Your task to perform on an android device: Add bose soundlink mini to the cart on newegg.com, then select checkout. Image 0: 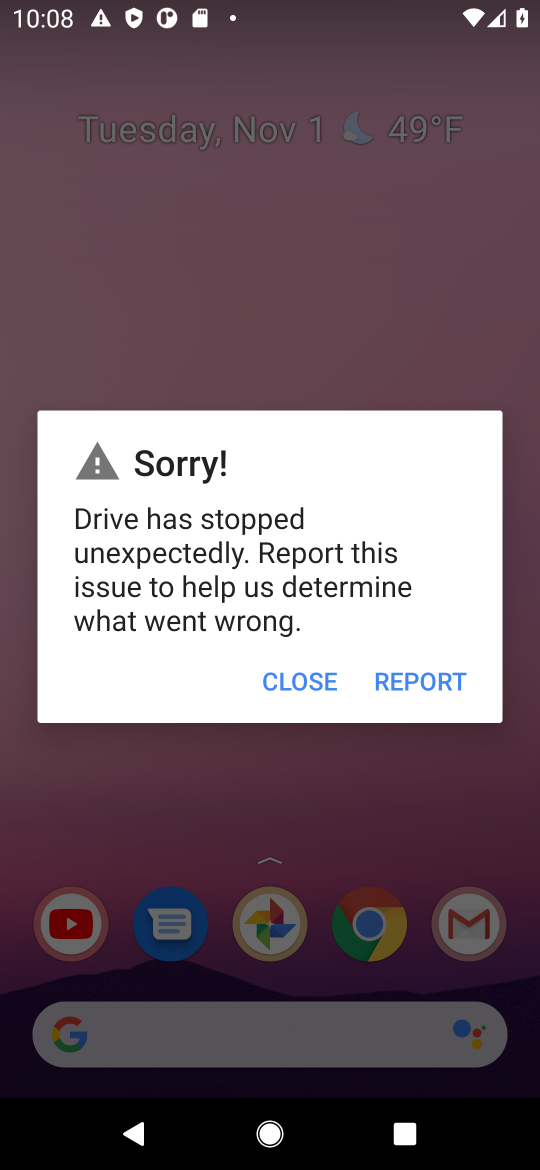
Step 0: press home button
Your task to perform on an android device: Add bose soundlink mini to the cart on newegg.com, then select checkout. Image 1: 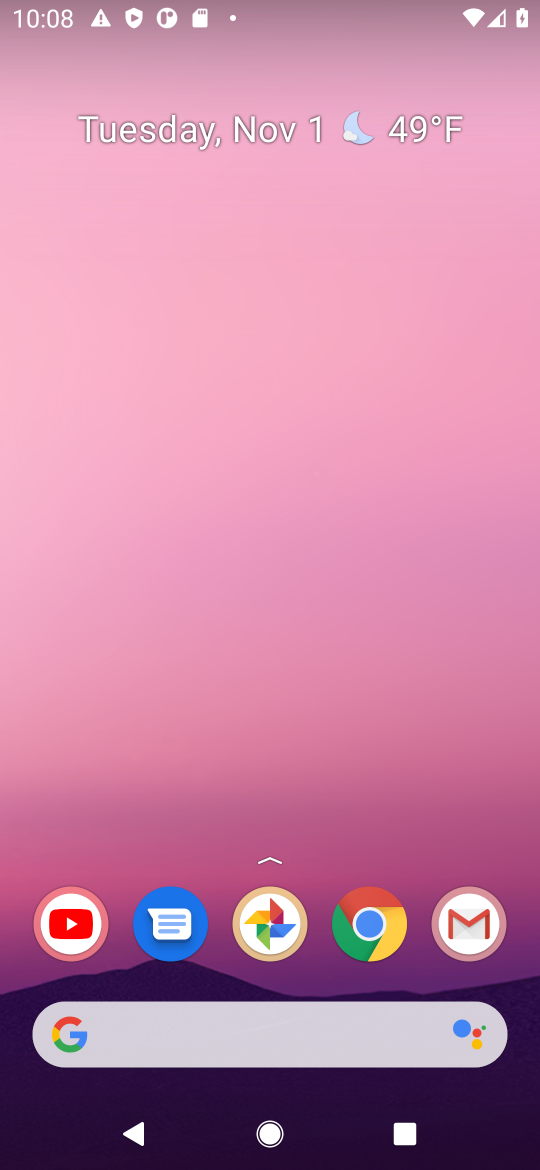
Step 1: click (347, 928)
Your task to perform on an android device: Add bose soundlink mini to the cart on newegg.com, then select checkout. Image 2: 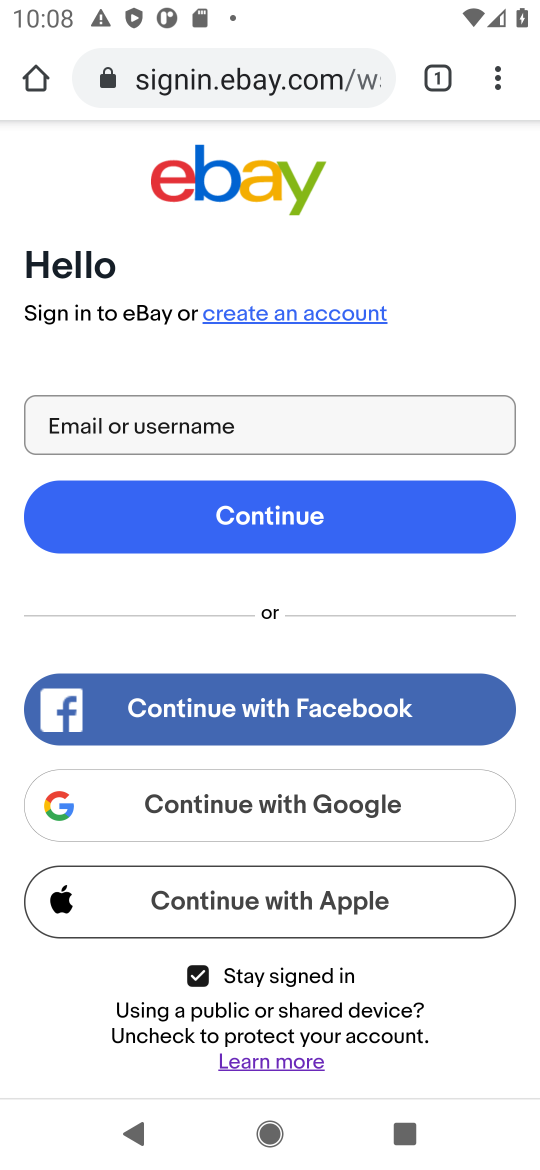
Step 2: click (300, 73)
Your task to perform on an android device: Add bose soundlink mini to the cart on newegg.com, then select checkout. Image 3: 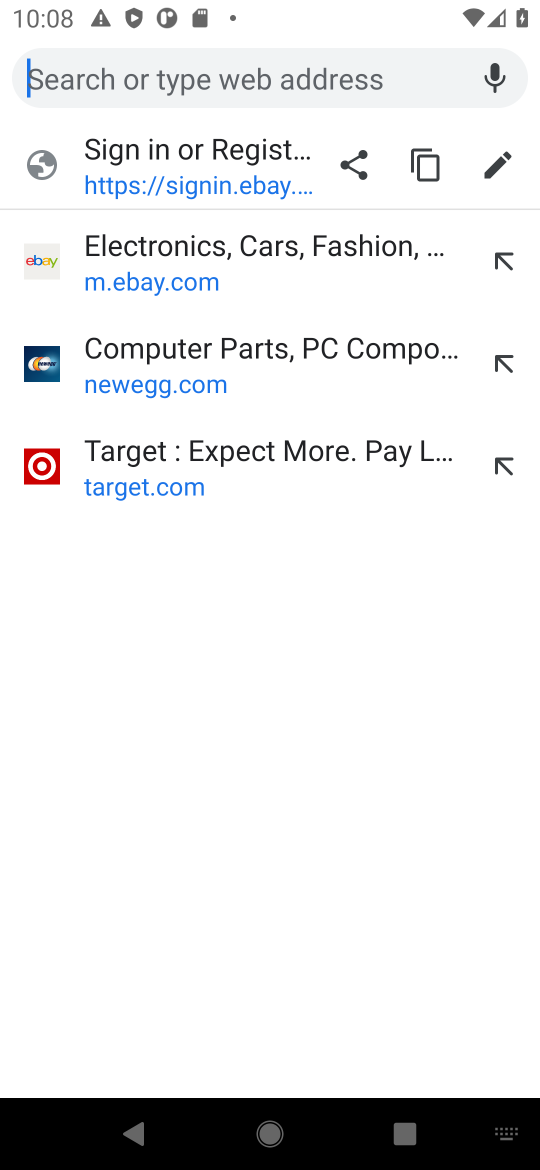
Step 3: type "newegg.com"
Your task to perform on an android device: Add bose soundlink mini to the cart on newegg.com, then select checkout. Image 4: 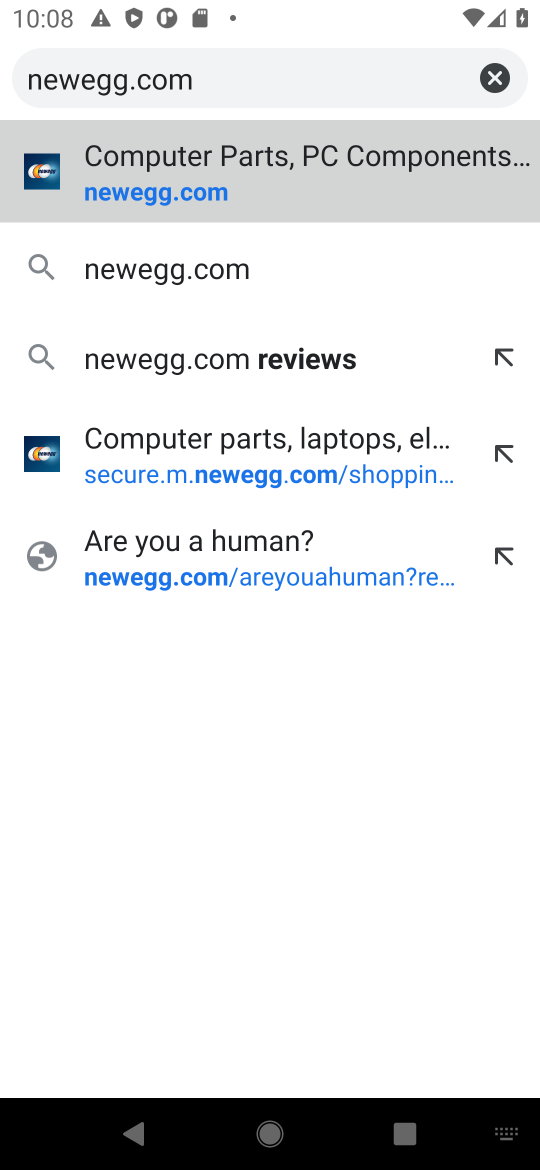
Step 4: click (389, 185)
Your task to perform on an android device: Add bose soundlink mini to the cart on newegg.com, then select checkout. Image 5: 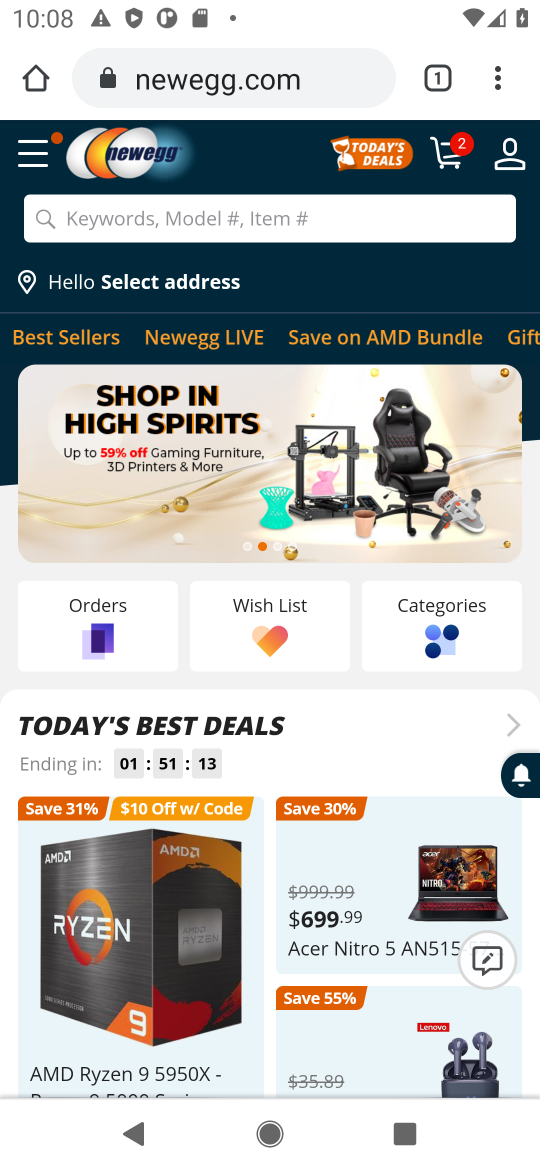
Step 5: click (290, 218)
Your task to perform on an android device: Add bose soundlink mini to the cart on newegg.com, then select checkout. Image 6: 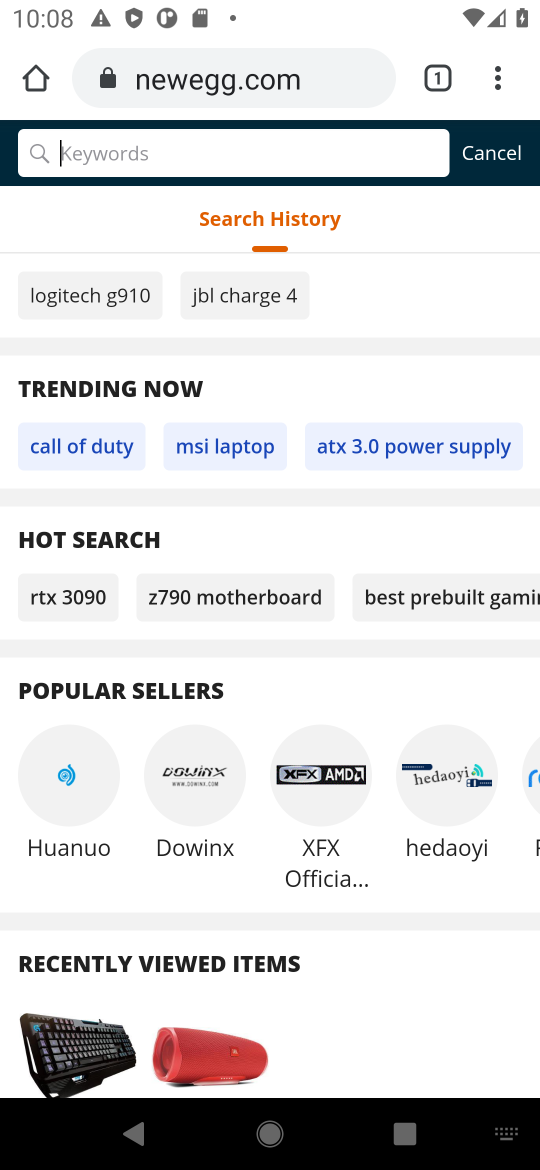
Step 6: type "bose soundlink mini"
Your task to perform on an android device: Add bose soundlink mini to the cart on newegg.com, then select checkout. Image 7: 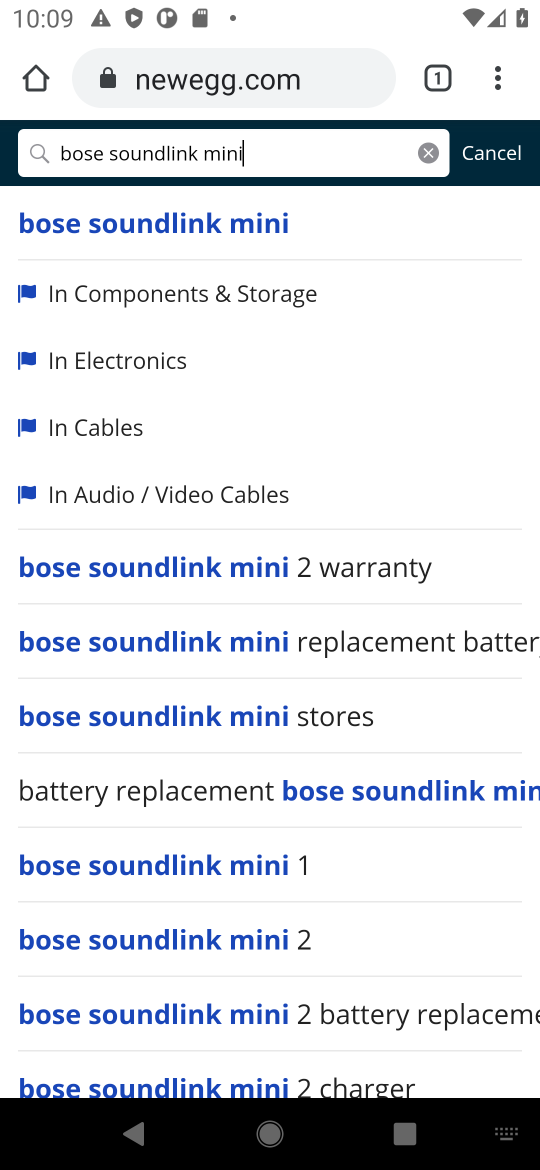
Step 7: press enter
Your task to perform on an android device: Add bose soundlink mini to the cart on newegg.com, then select checkout. Image 8: 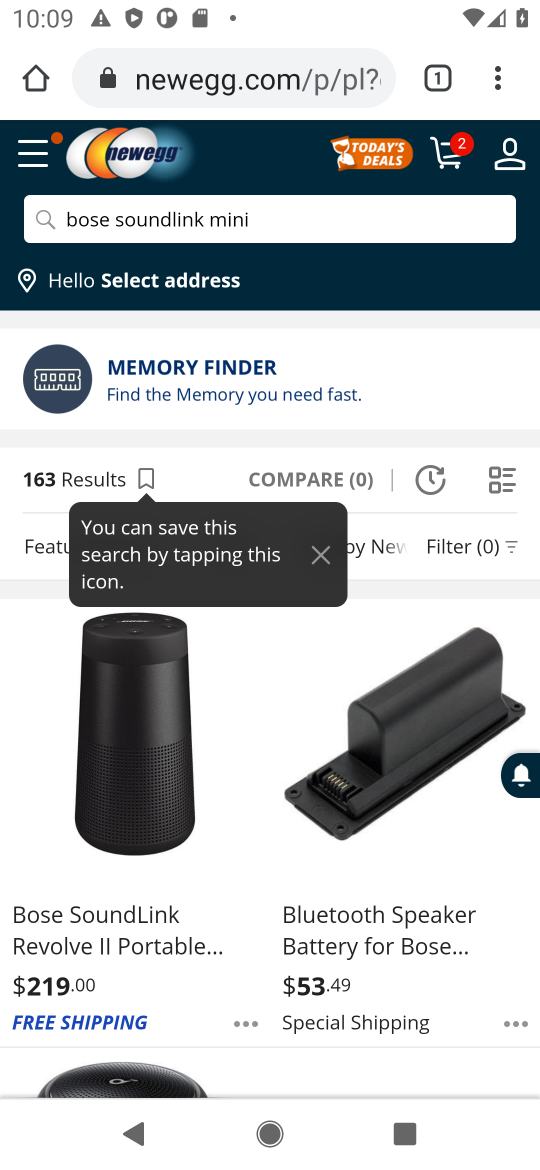
Step 8: click (92, 847)
Your task to perform on an android device: Add bose soundlink mini to the cart on newegg.com, then select checkout. Image 9: 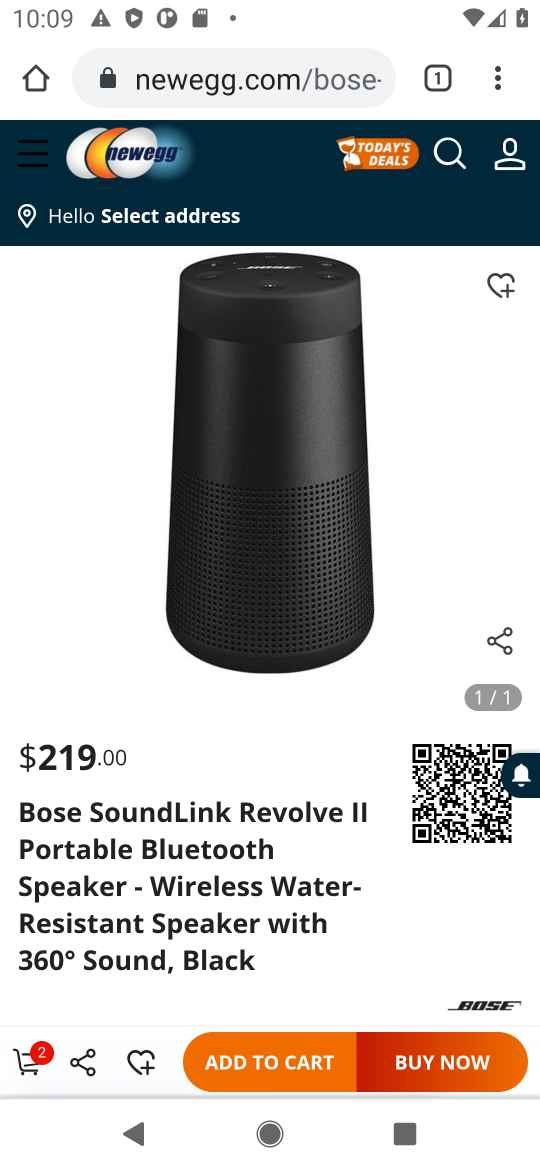
Step 9: click (282, 1076)
Your task to perform on an android device: Add bose soundlink mini to the cart on newegg.com, then select checkout. Image 10: 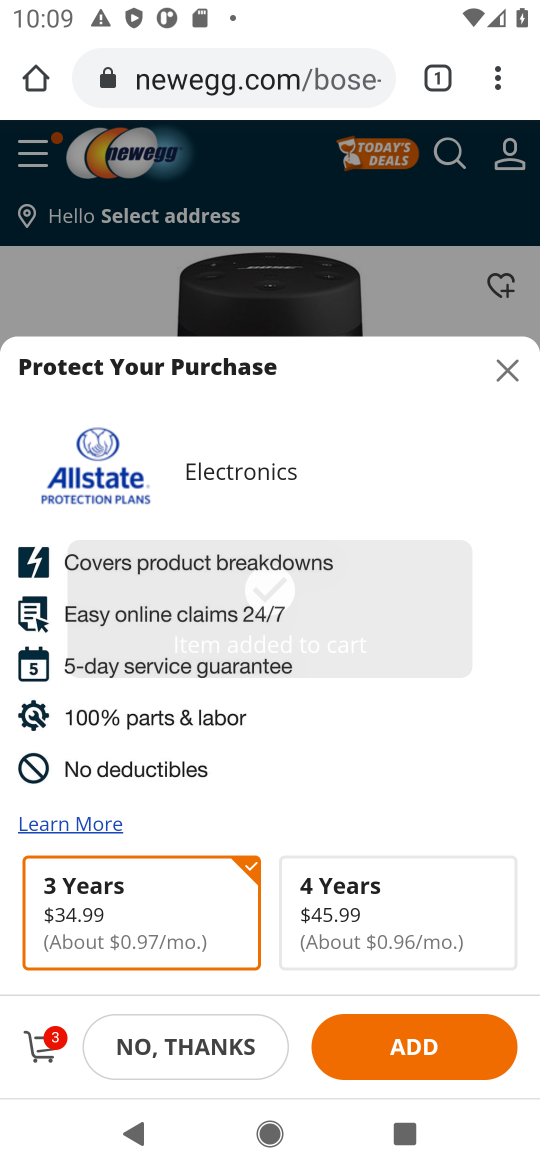
Step 10: press back button
Your task to perform on an android device: Add bose soundlink mini to the cart on newegg.com, then select checkout. Image 11: 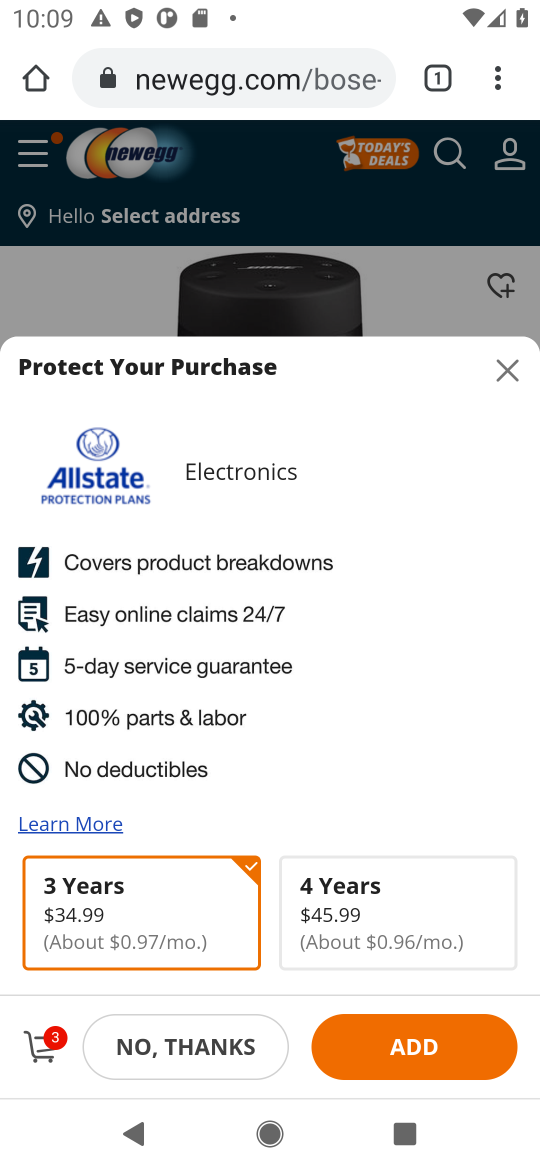
Step 11: press back button
Your task to perform on an android device: Add bose soundlink mini to the cart on newegg.com, then select checkout. Image 12: 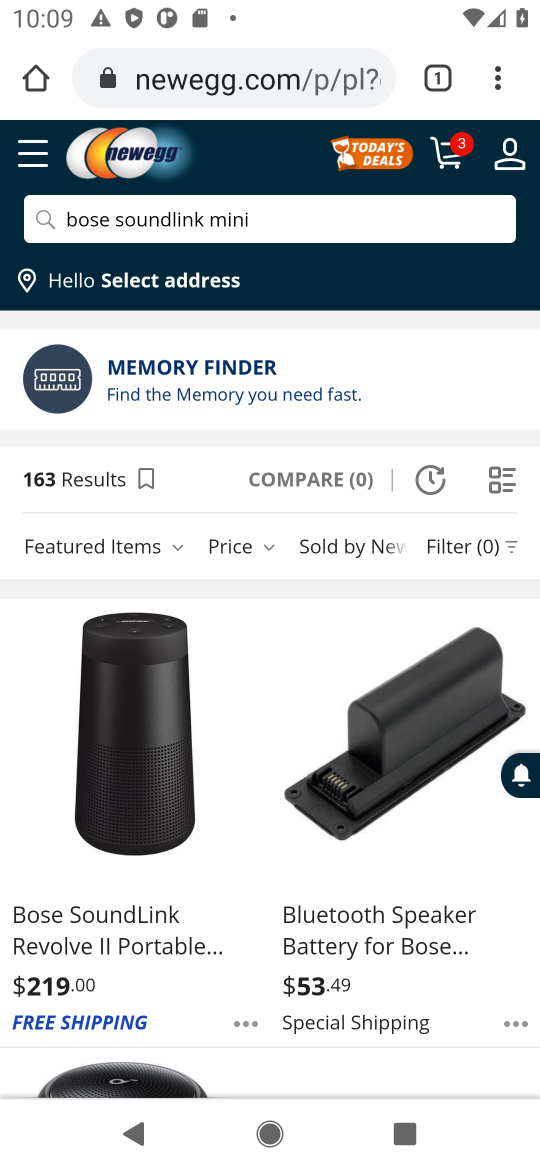
Step 12: click (513, 376)
Your task to perform on an android device: Add bose soundlink mini to the cart on newegg.com, then select checkout. Image 13: 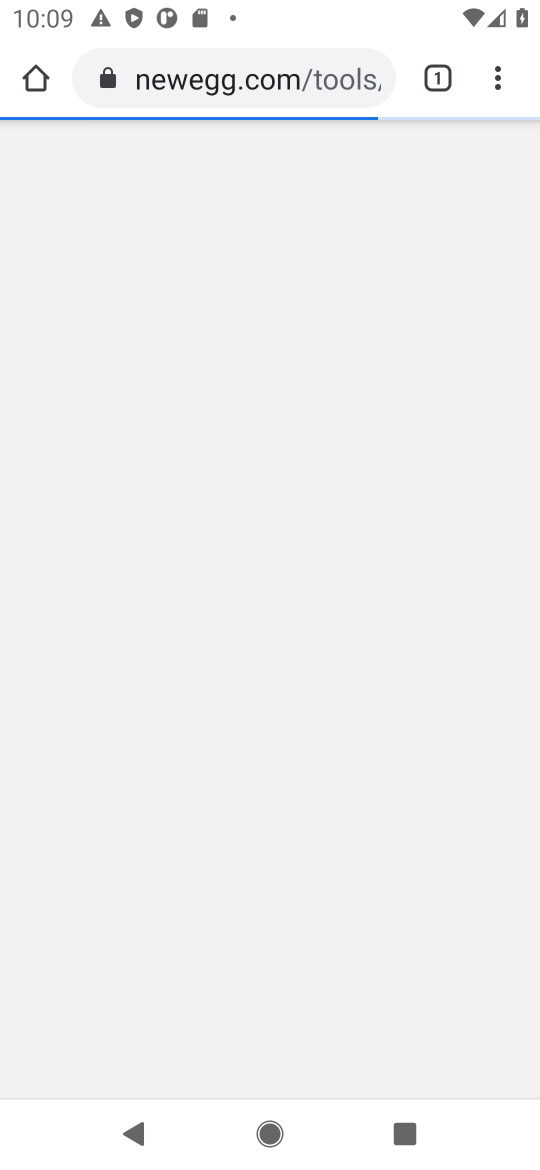
Step 13: click (243, 882)
Your task to perform on an android device: Add bose soundlink mini to the cart on newegg.com, then select checkout. Image 14: 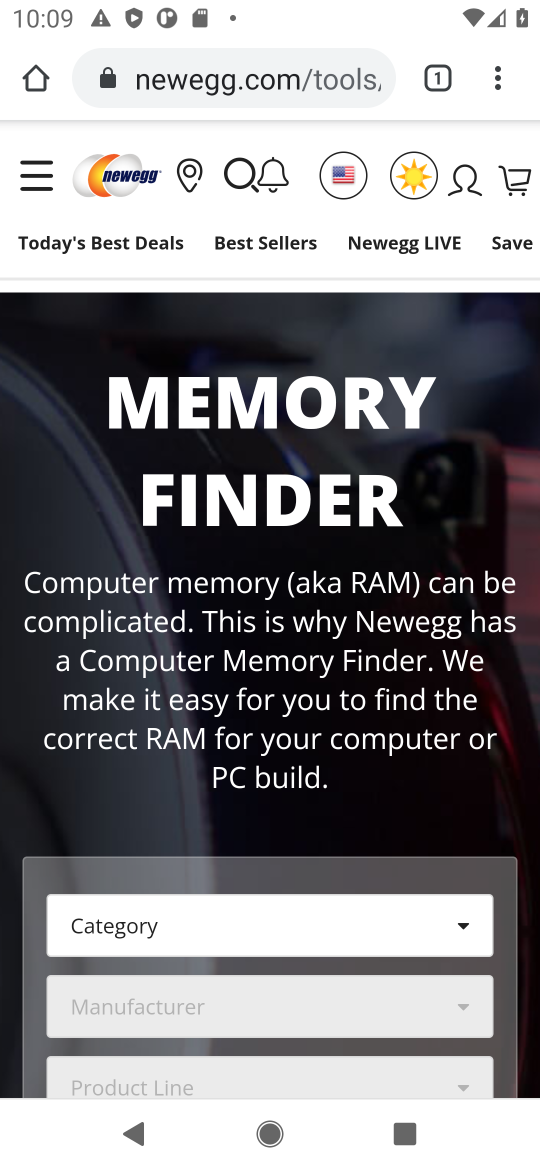
Step 14: press back button
Your task to perform on an android device: Add bose soundlink mini to the cart on newegg.com, then select checkout. Image 15: 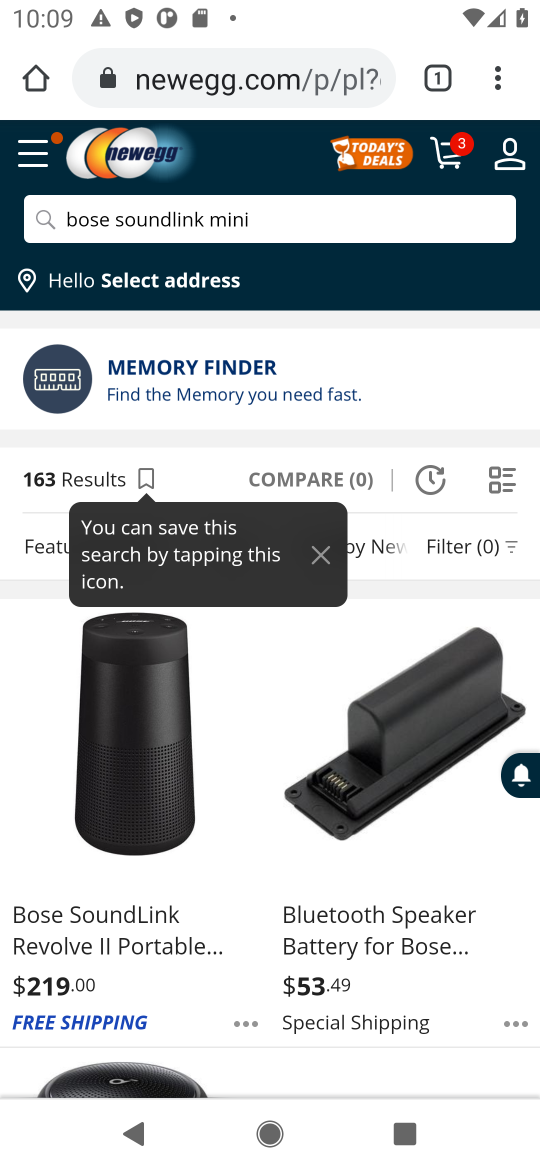
Step 15: drag from (226, 581) to (247, 251)
Your task to perform on an android device: Add bose soundlink mini to the cart on newegg.com, then select checkout. Image 16: 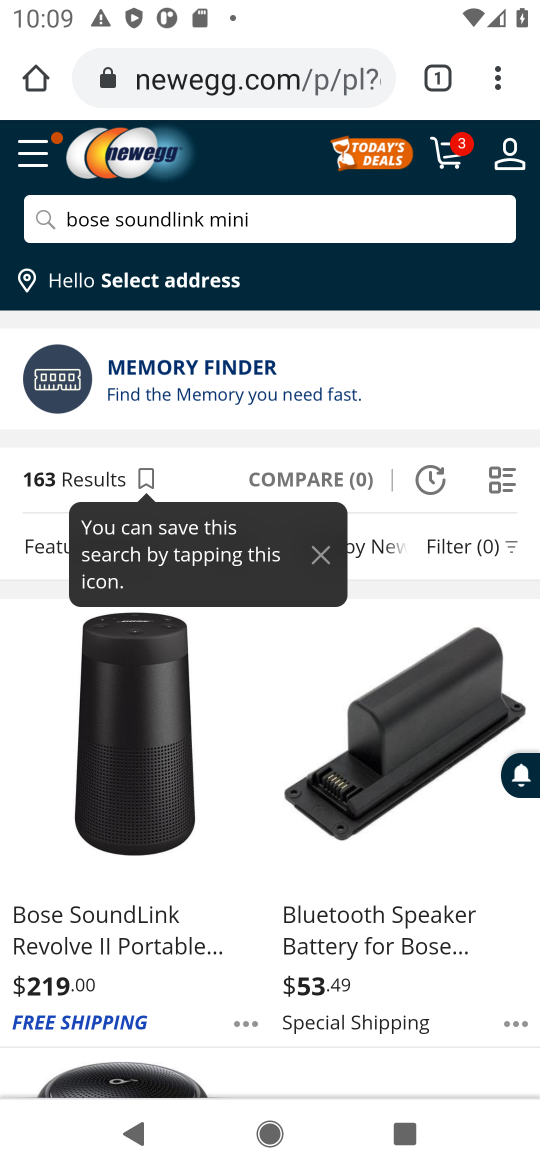
Step 16: drag from (249, 1029) to (209, 547)
Your task to perform on an android device: Add bose soundlink mini to the cart on newegg.com, then select checkout. Image 17: 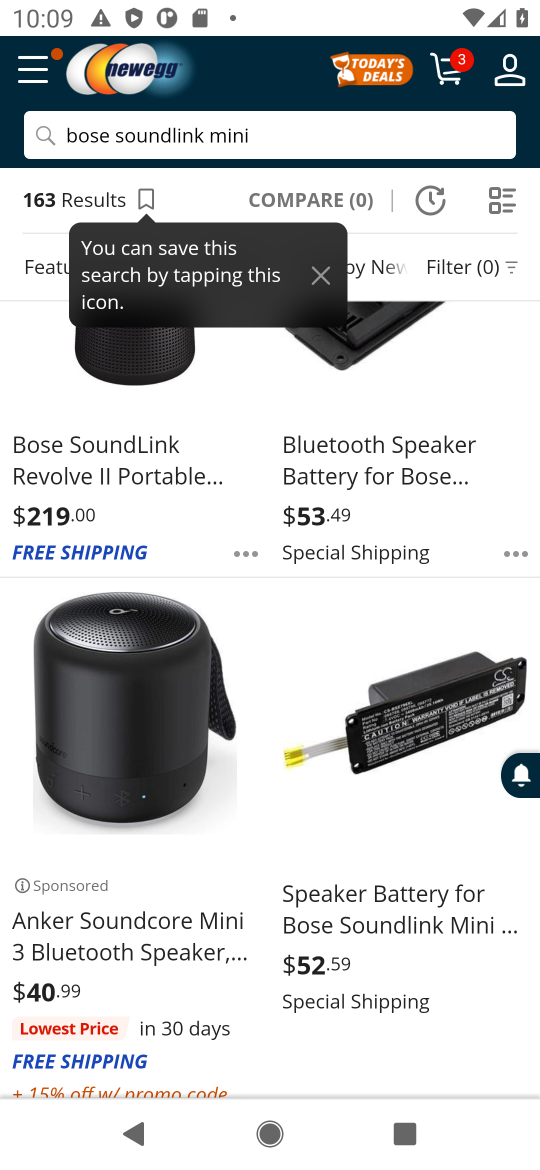
Step 17: click (452, 75)
Your task to perform on an android device: Add bose soundlink mini to the cart on newegg.com, then select checkout. Image 18: 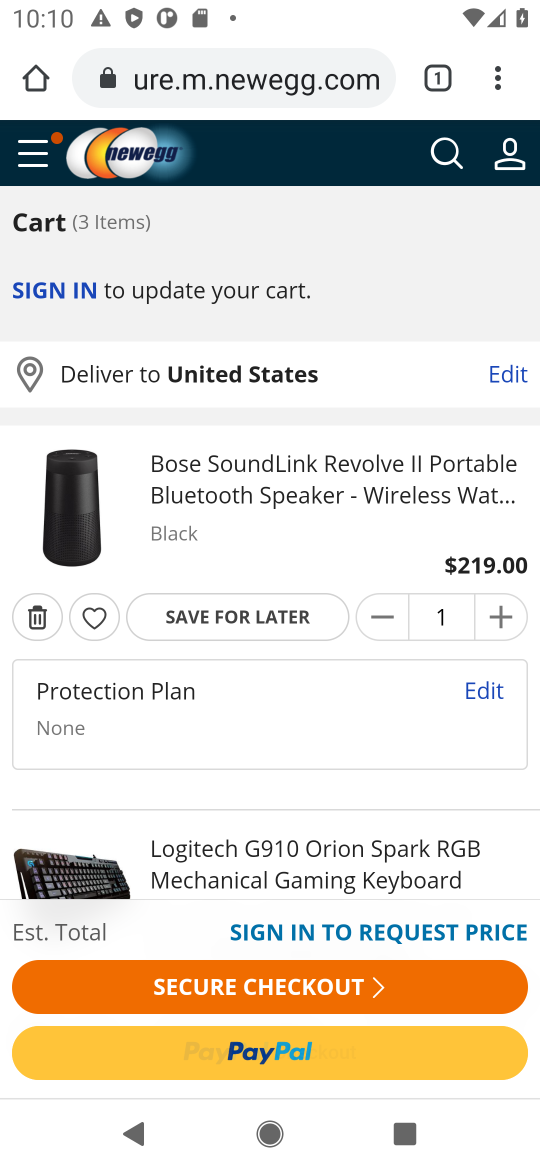
Step 18: click (253, 987)
Your task to perform on an android device: Add bose soundlink mini to the cart on newegg.com, then select checkout. Image 19: 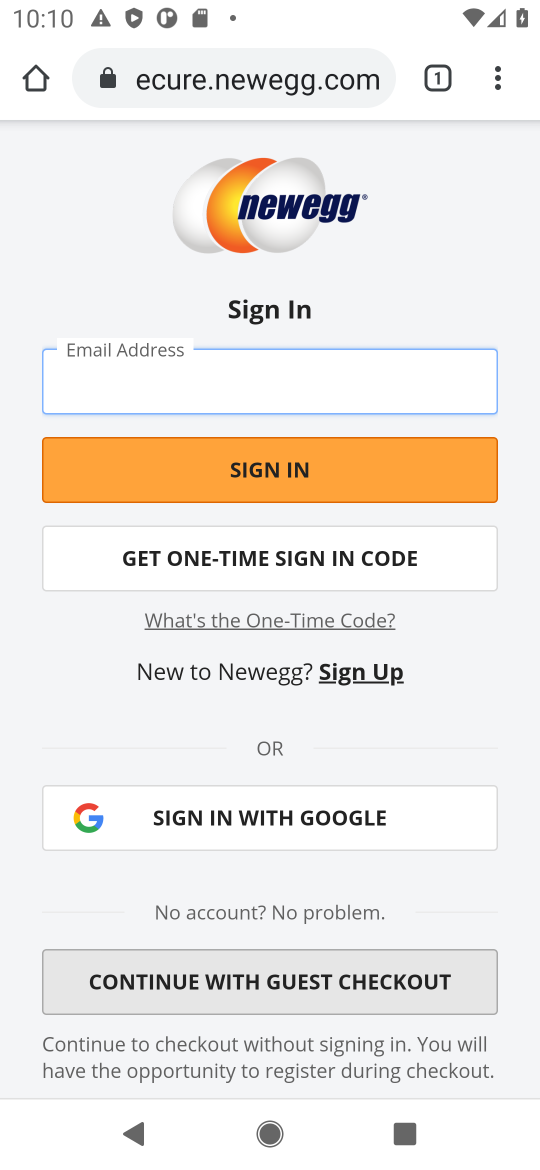
Step 19: task complete